Your task to perform on an android device: Show me productivity apps on the Play Store Image 0: 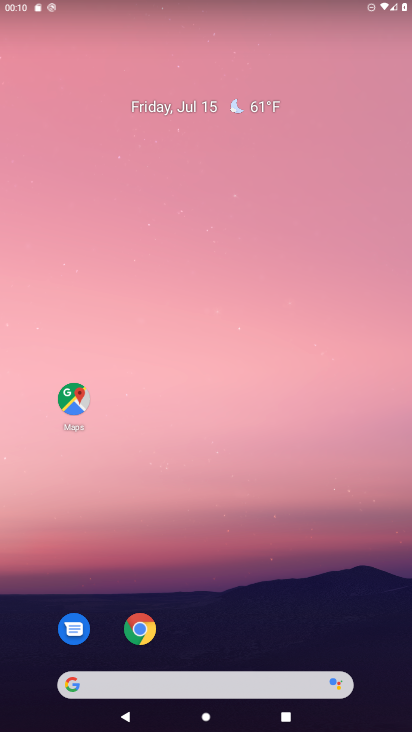
Step 0: drag from (203, 648) to (257, 39)
Your task to perform on an android device: Show me productivity apps on the Play Store Image 1: 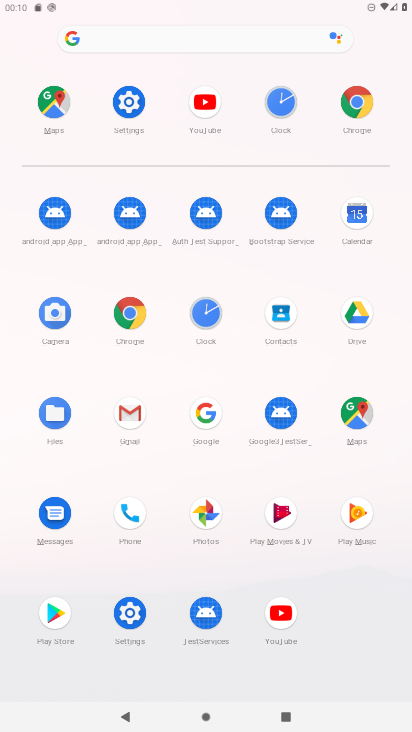
Step 1: click (54, 615)
Your task to perform on an android device: Show me productivity apps on the Play Store Image 2: 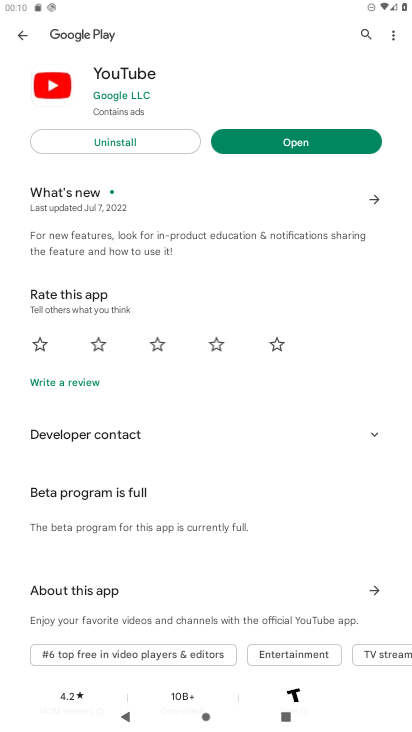
Step 2: click (24, 35)
Your task to perform on an android device: Show me productivity apps on the Play Store Image 3: 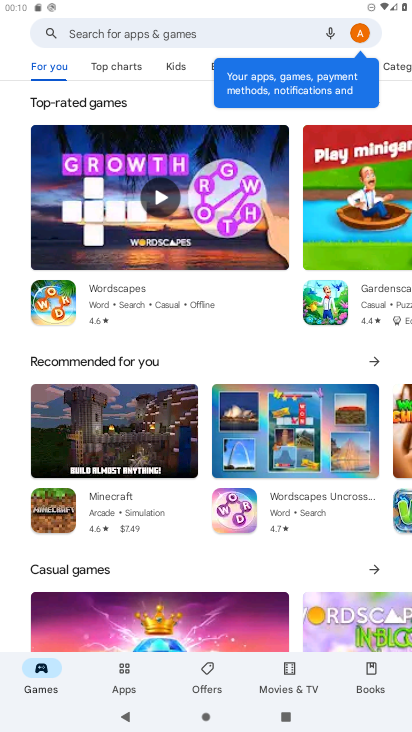
Step 3: click (126, 673)
Your task to perform on an android device: Show me productivity apps on the Play Store Image 4: 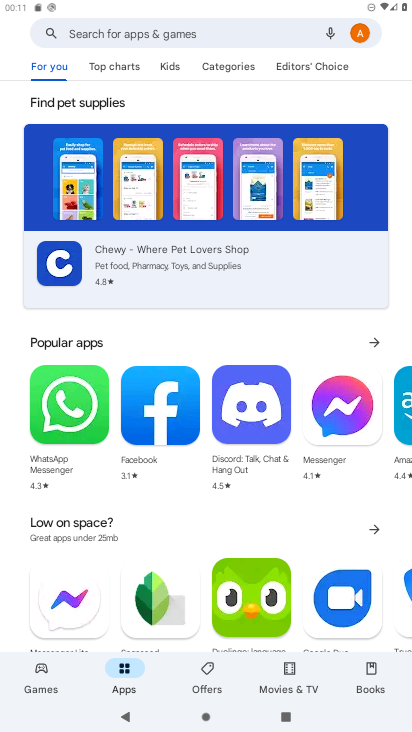
Step 4: click (236, 66)
Your task to perform on an android device: Show me productivity apps on the Play Store Image 5: 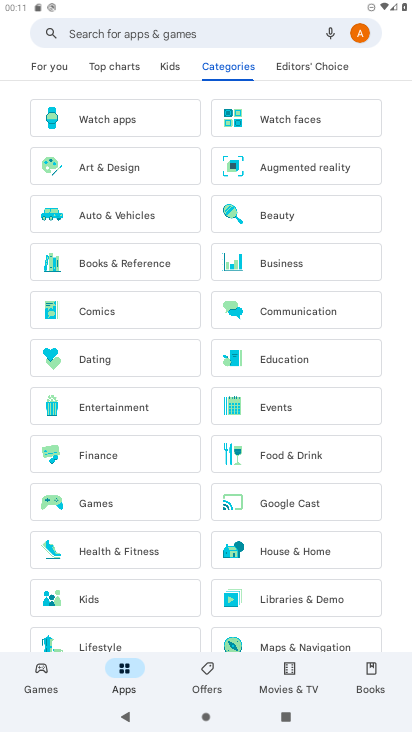
Step 5: drag from (212, 572) to (250, 109)
Your task to perform on an android device: Show me productivity apps on the Play Store Image 6: 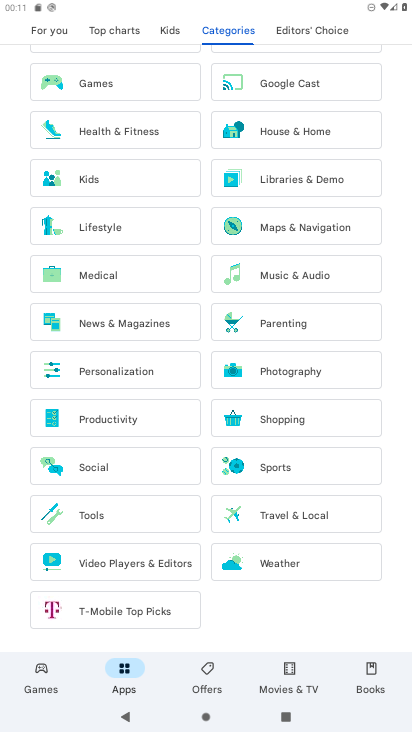
Step 6: click (90, 411)
Your task to perform on an android device: Show me productivity apps on the Play Store Image 7: 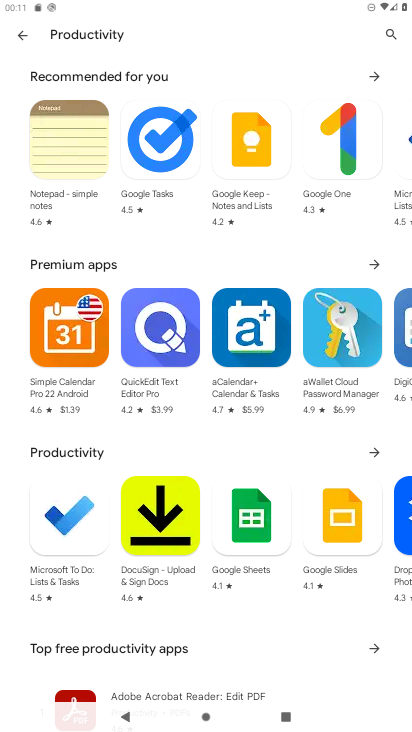
Step 7: task complete